Your task to perform on an android device: Open Android settings Image 0: 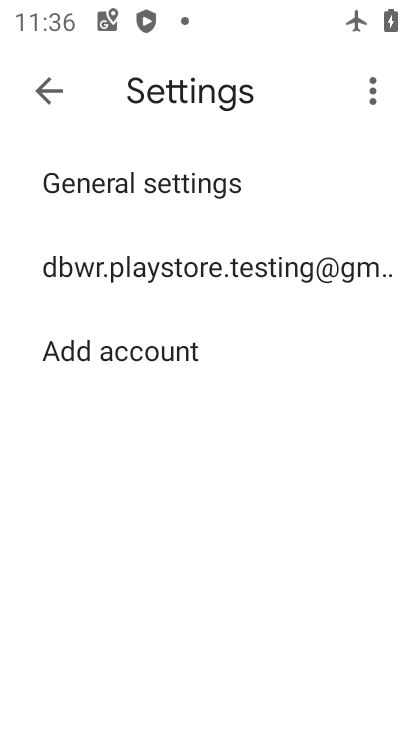
Step 0: press home button
Your task to perform on an android device: Open Android settings Image 1: 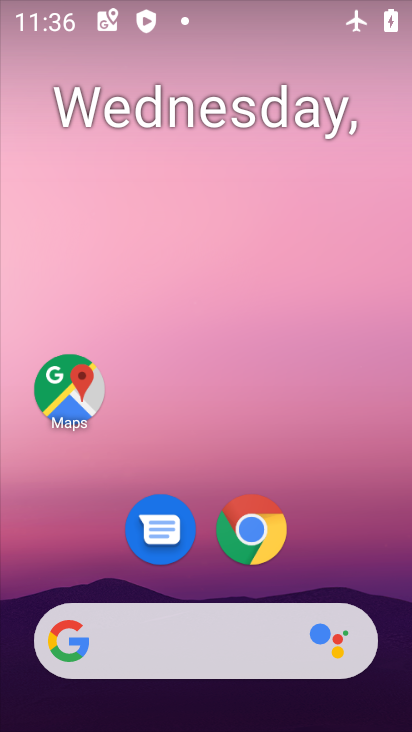
Step 1: drag from (238, 595) to (167, 42)
Your task to perform on an android device: Open Android settings Image 2: 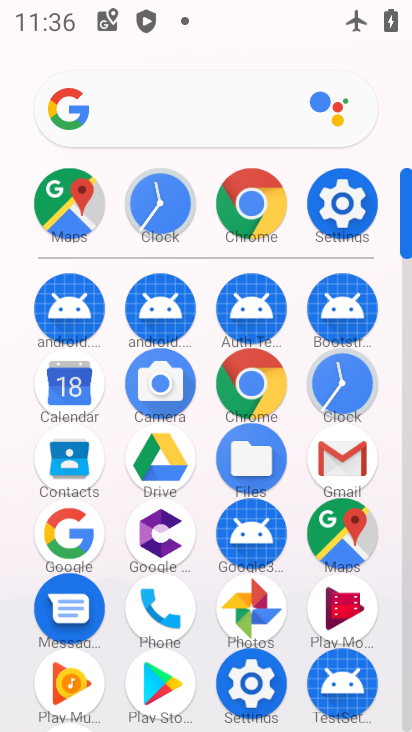
Step 2: click (366, 205)
Your task to perform on an android device: Open Android settings Image 3: 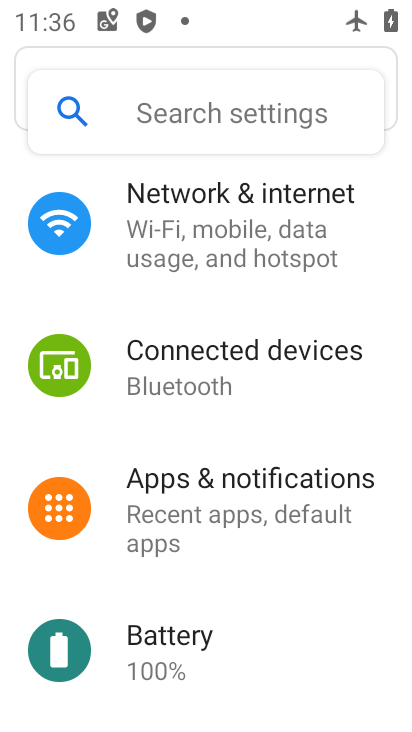
Step 3: task complete